Your task to perform on an android device: turn on improve location accuracy Image 0: 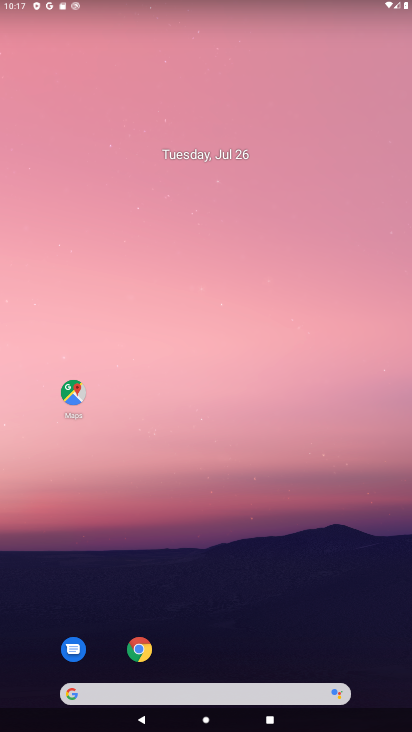
Step 0: drag from (241, 678) to (289, 25)
Your task to perform on an android device: turn on improve location accuracy Image 1: 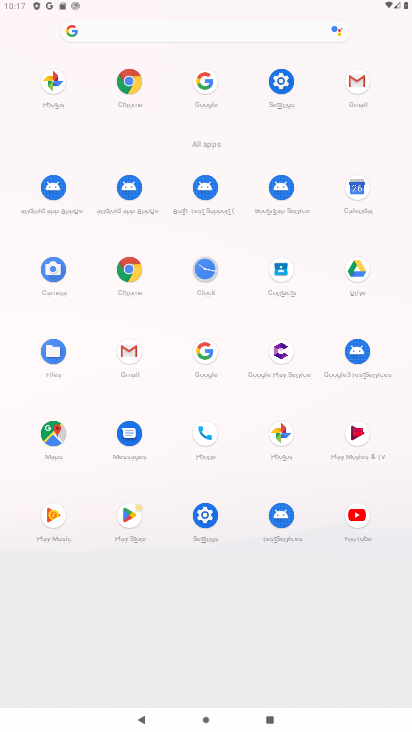
Step 1: click (281, 84)
Your task to perform on an android device: turn on improve location accuracy Image 2: 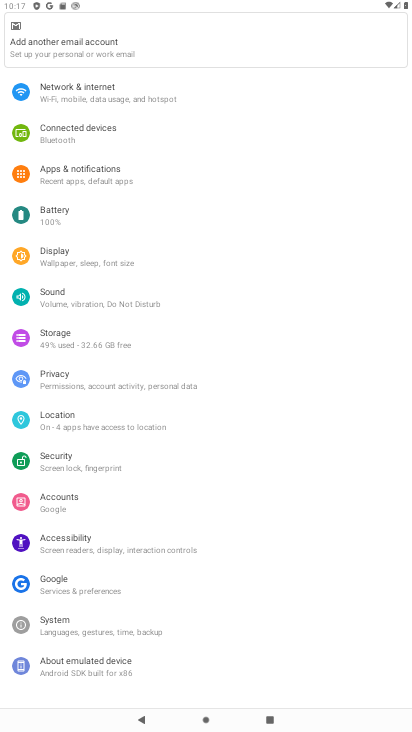
Step 2: click (72, 419)
Your task to perform on an android device: turn on improve location accuracy Image 3: 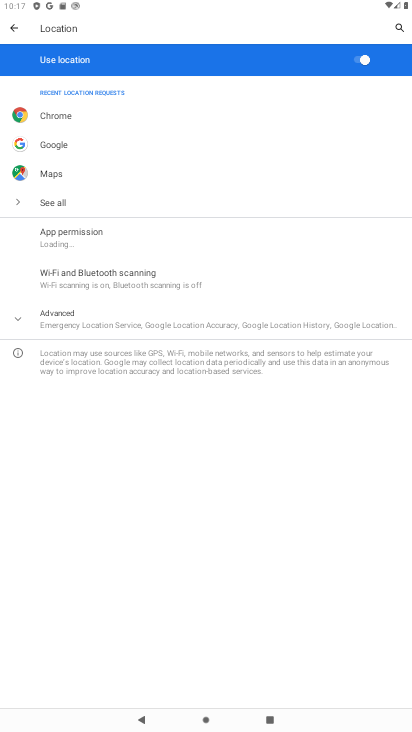
Step 3: click (51, 321)
Your task to perform on an android device: turn on improve location accuracy Image 4: 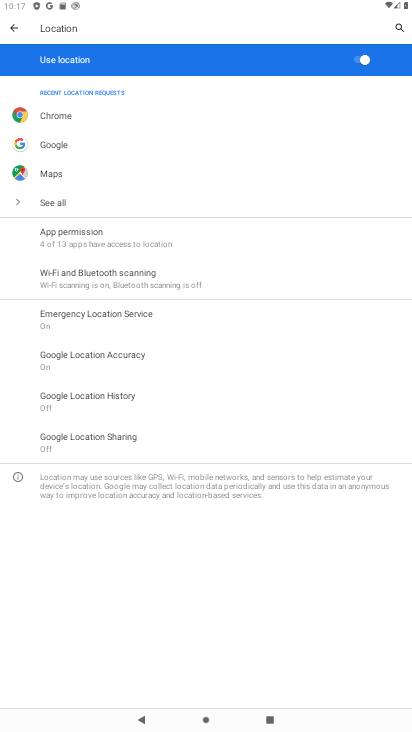
Step 4: click (68, 362)
Your task to perform on an android device: turn on improve location accuracy Image 5: 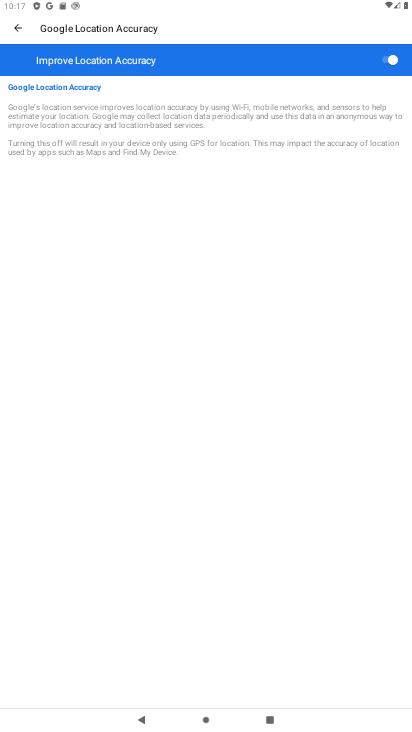
Step 5: task complete